Your task to perform on an android device: show emergency info Image 0: 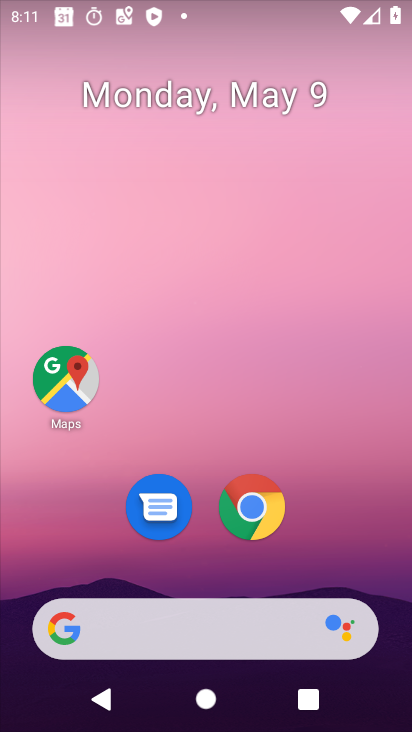
Step 0: drag from (251, 576) to (174, 215)
Your task to perform on an android device: show emergency info Image 1: 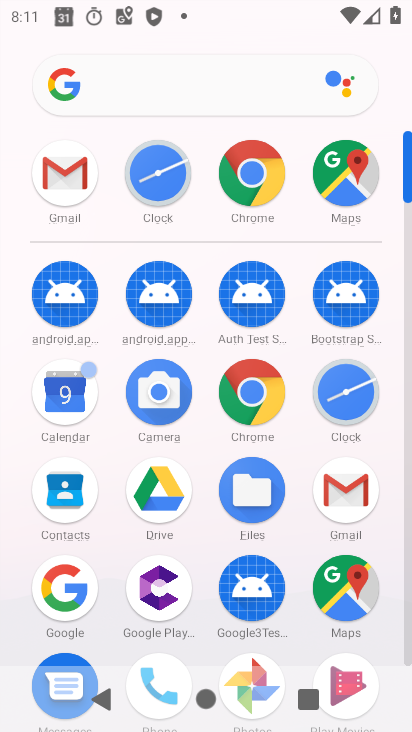
Step 1: drag from (204, 534) to (260, 383)
Your task to perform on an android device: show emergency info Image 2: 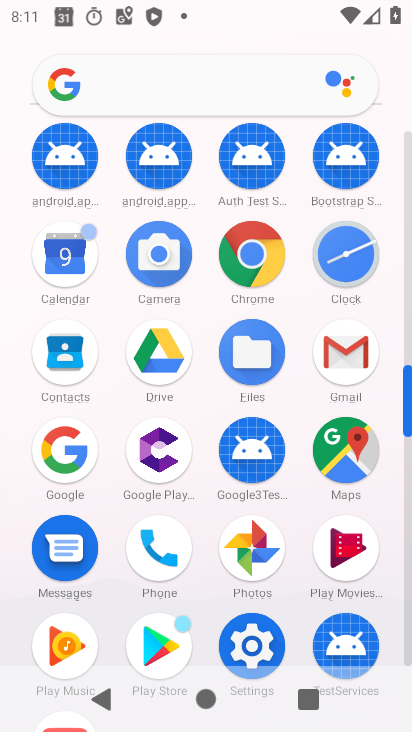
Step 2: click (261, 623)
Your task to perform on an android device: show emergency info Image 3: 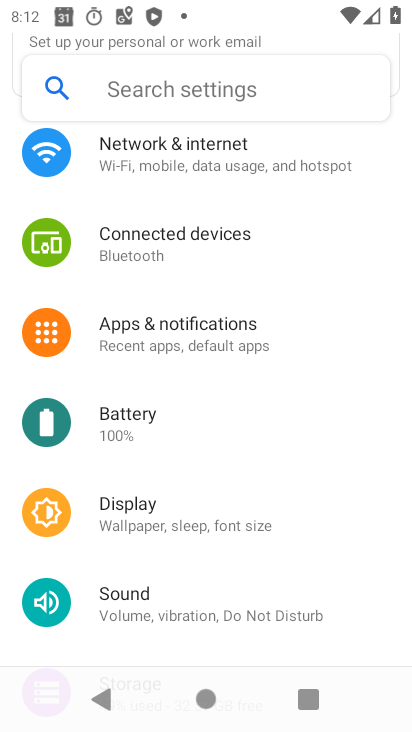
Step 3: click (146, 84)
Your task to perform on an android device: show emergency info Image 4: 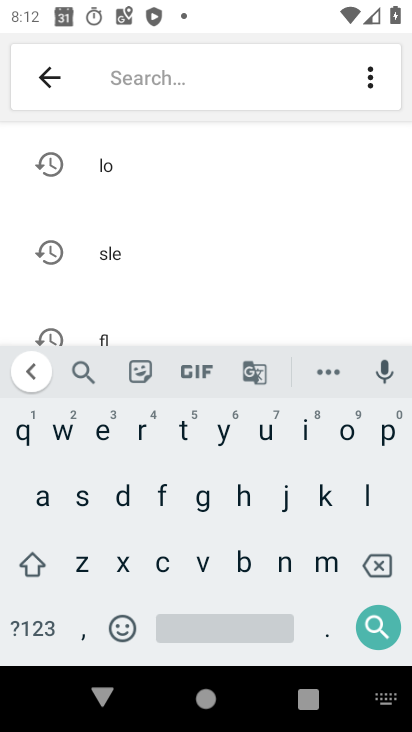
Step 4: click (98, 440)
Your task to perform on an android device: show emergency info Image 5: 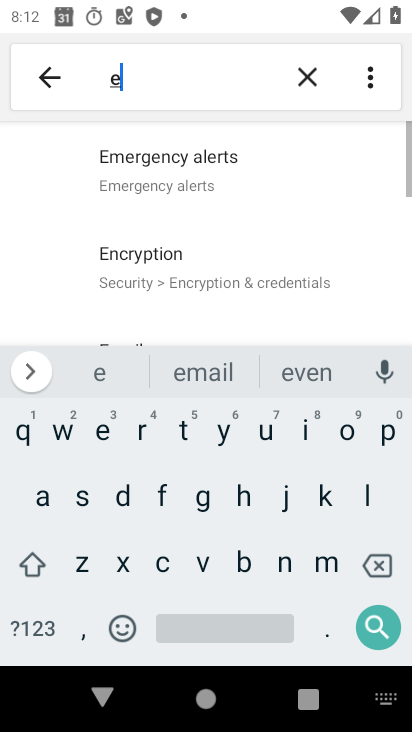
Step 5: click (319, 567)
Your task to perform on an android device: show emergency info Image 6: 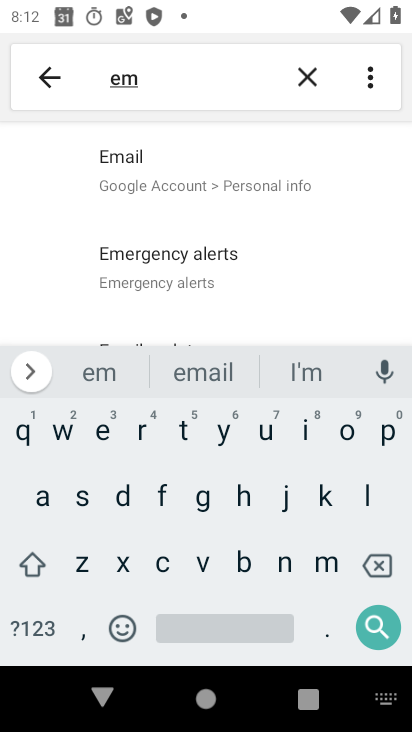
Step 6: click (100, 435)
Your task to perform on an android device: show emergency info Image 7: 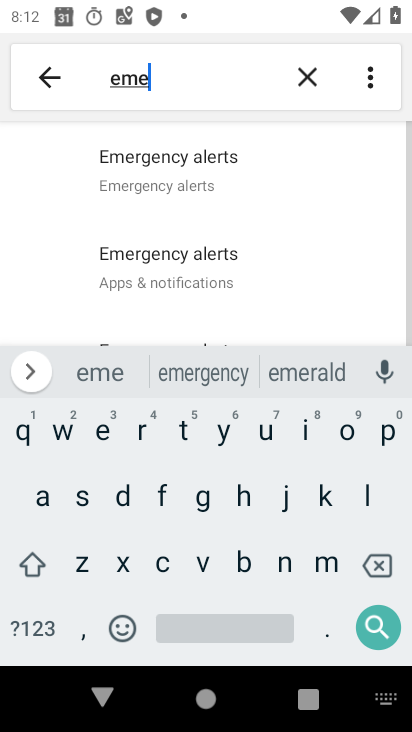
Step 7: click (201, 380)
Your task to perform on an android device: show emergency info Image 8: 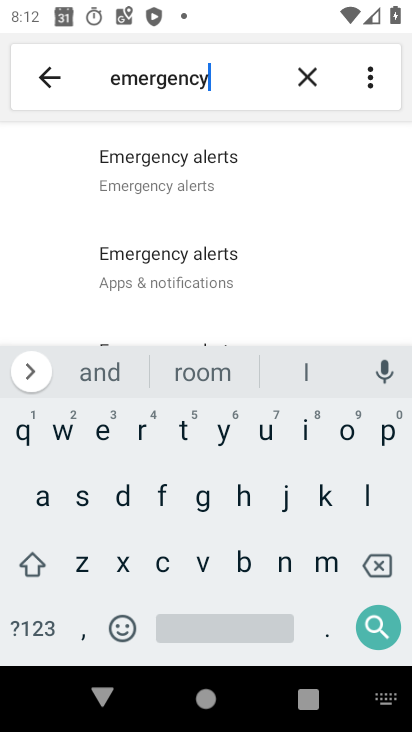
Step 8: click (298, 432)
Your task to perform on an android device: show emergency info Image 9: 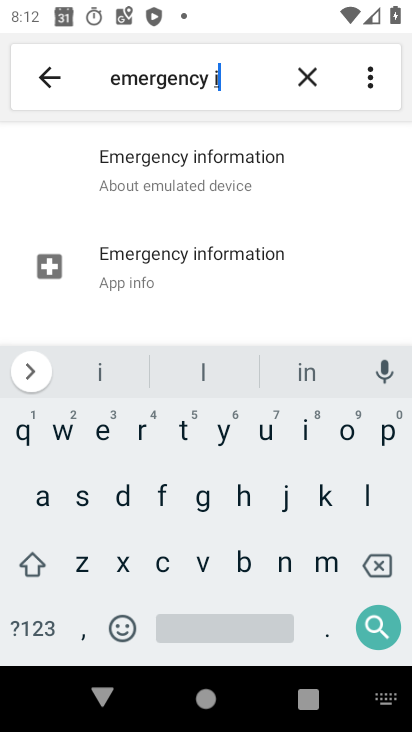
Step 9: click (179, 169)
Your task to perform on an android device: show emergency info Image 10: 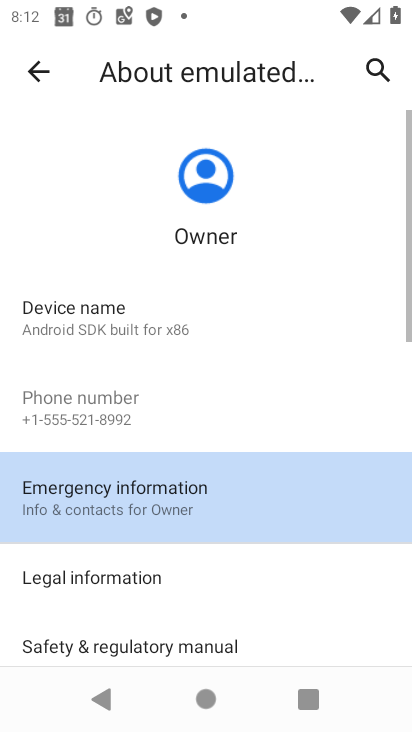
Step 10: click (81, 500)
Your task to perform on an android device: show emergency info Image 11: 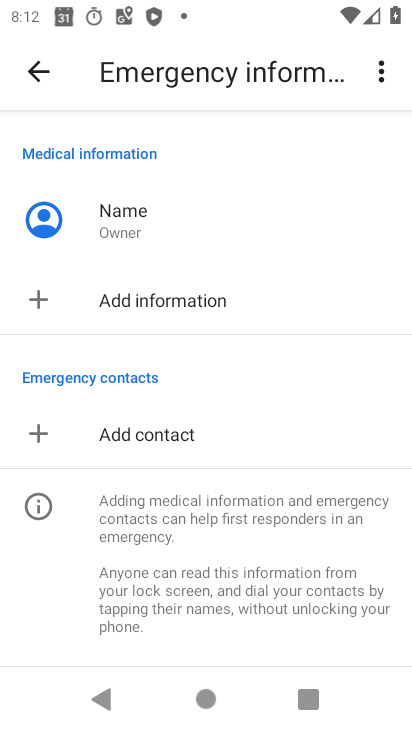
Step 11: task complete